Your task to perform on an android device: add a contact in the contacts app Image 0: 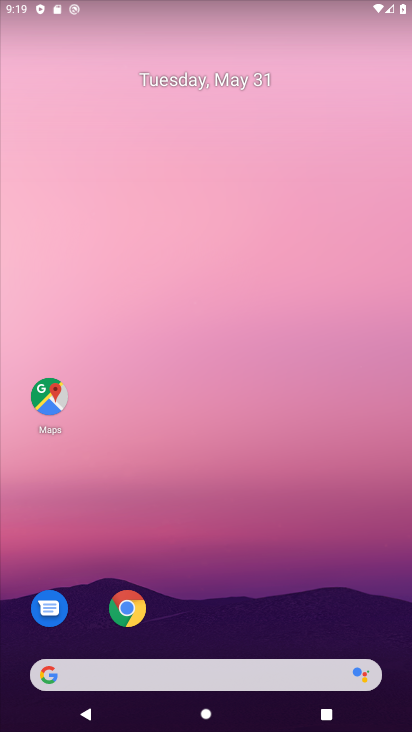
Step 0: task complete